Your task to perform on an android device: Do I have any events tomorrow? Image 0: 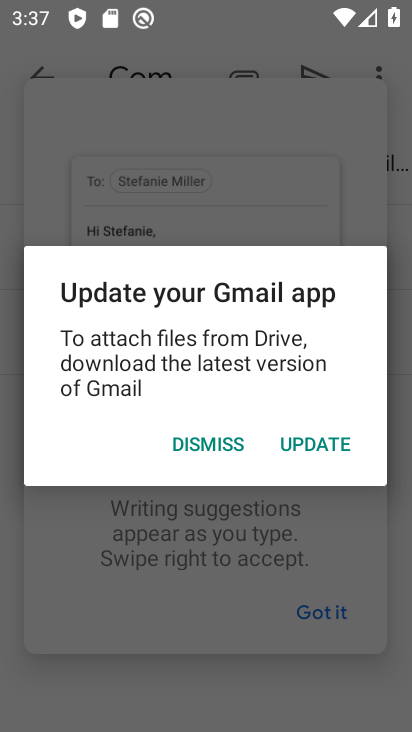
Step 0: press home button
Your task to perform on an android device: Do I have any events tomorrow? Image 1: 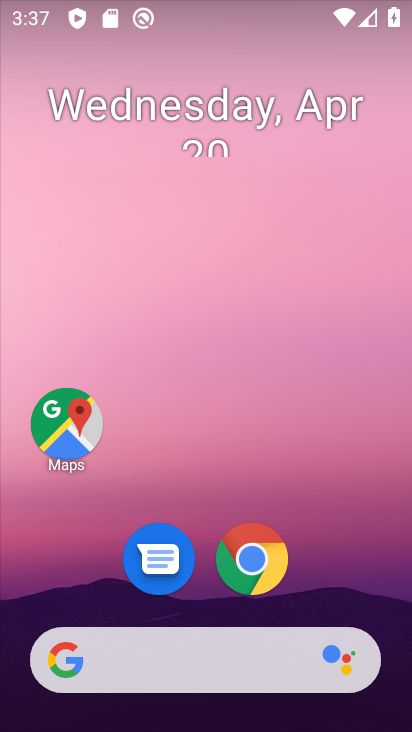
Step 1: drag from (189, 597) to (352, 189)
Your task to perform on an android device: Do I have any events tomorrow? Image 2: 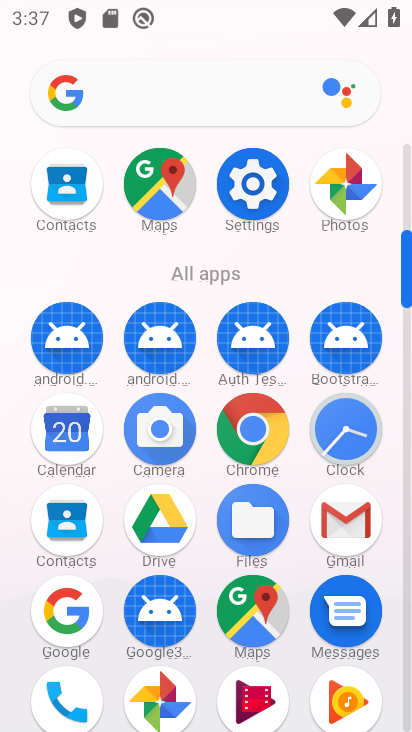
Step 2: click (78, 431)
Your task to perform on an android device: Do I have any events tomorrow? Image 3: 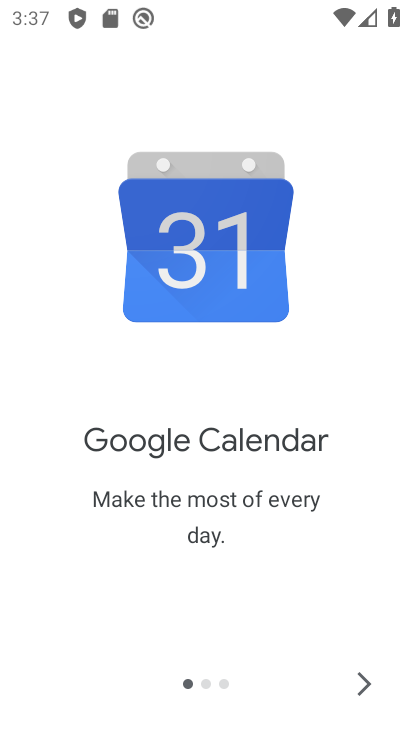
Step 3: click (371, 672)
Your task to perform on an android device: Do I have any events tomorrow? Image 4: 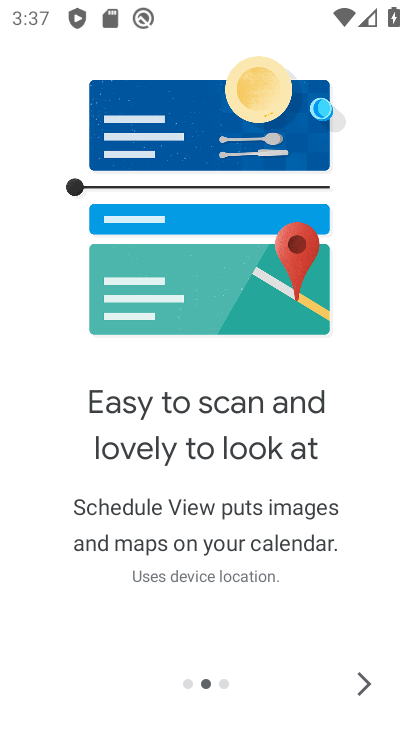
Step 4: click (352, 694)
Your task to perform on an android device: Do I have any events tomorrow? Image 5: 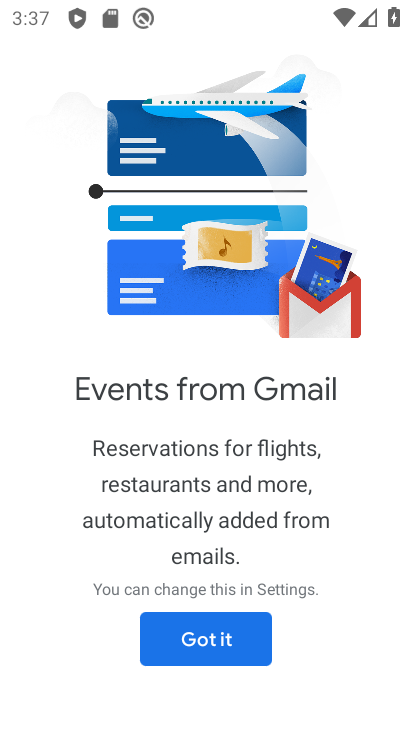
Step 5: click (248, 648)
Your task to perform on an android device: Do I have any events tomorrow? Image 6: 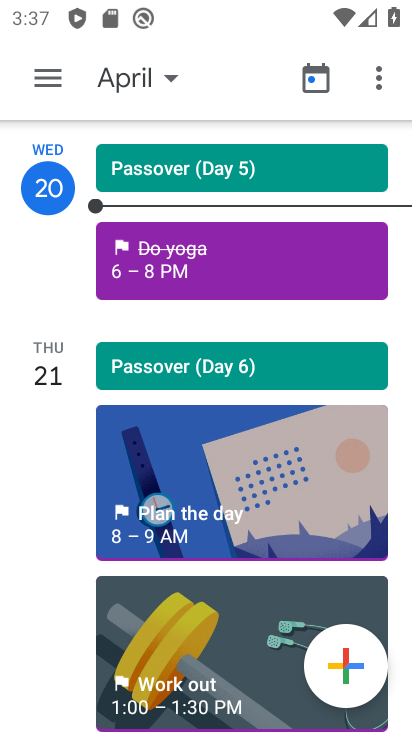
Step 6: click (149, 87)
Your task to perform on an android device: Do I have any events tomorrow? Image 7: 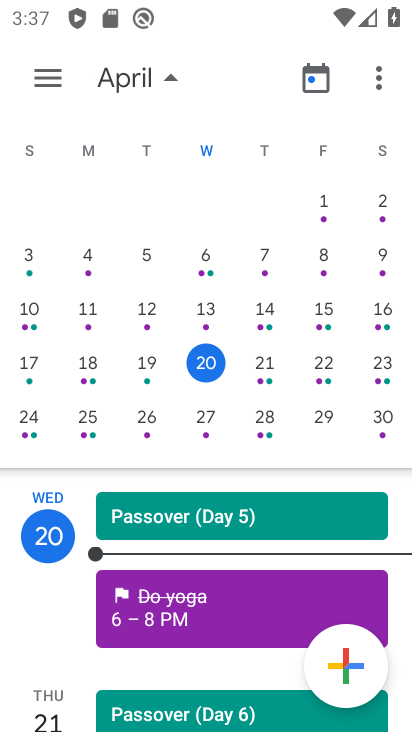
Step 7: click (263, 320)
Your task to perform on an android device: Do I have any events tomorrow? Image 8: 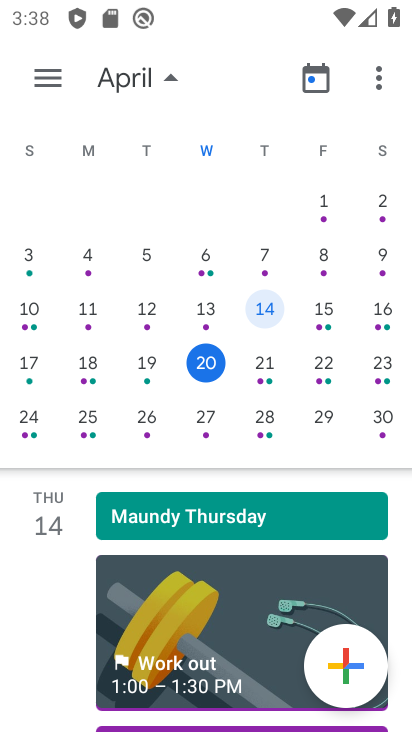
Step 8: task complete